Your task to perform on an android device: toggle show notifications on the lock screen Image 0: 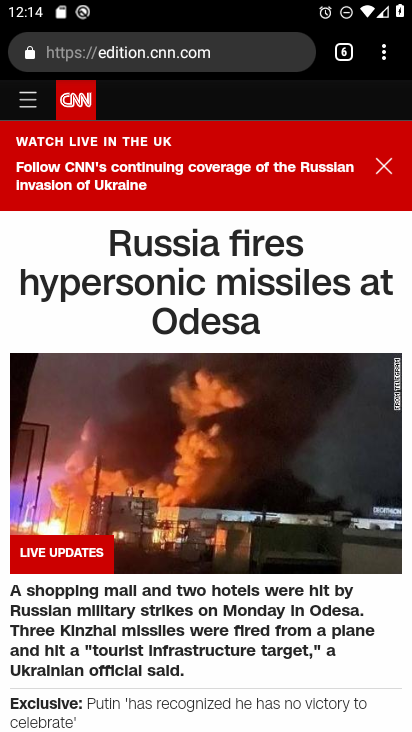
Step 0: press home button
Your task to perform on an android device: toggle show notifications on the lock screen Image 1: 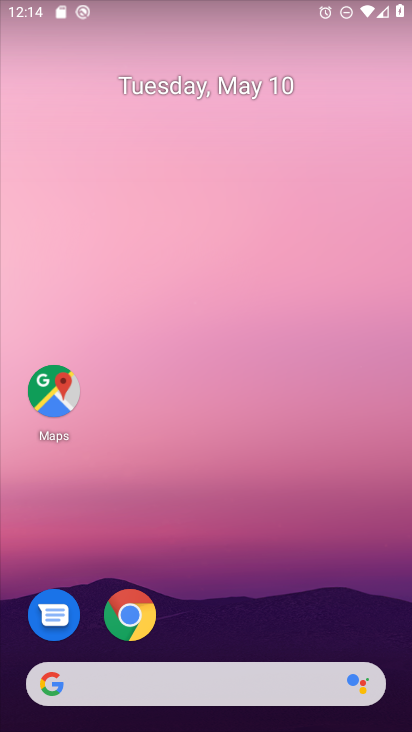
Step 1: drag from (236, 723) to (298, 355)
Your task to perform on an android device: toggle show notifications on the lock screen Image 2: 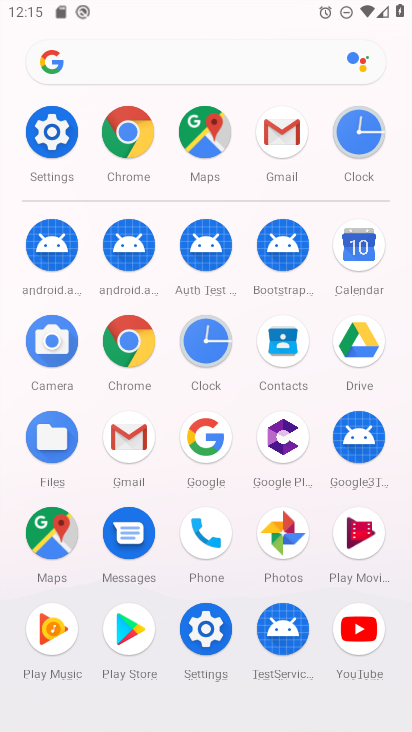
Step 2: click (66, 143)
Your task to perform on an android device: toggle show notifications on the lock screen Image 3: 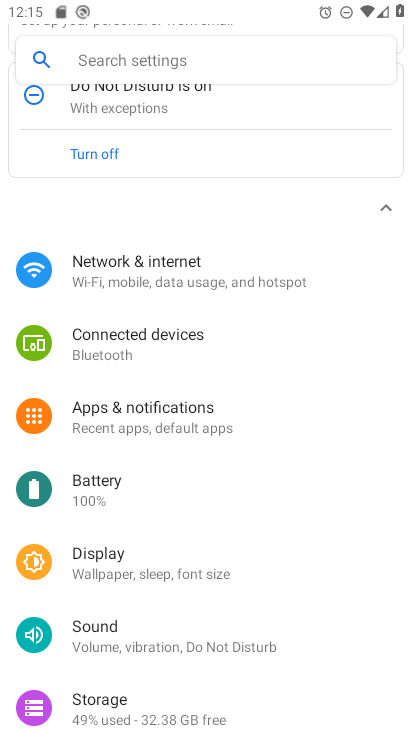
Step 3: click (146, 60)
Your task to perform on an android device: toggle show notifications on the lock screen Image 4: 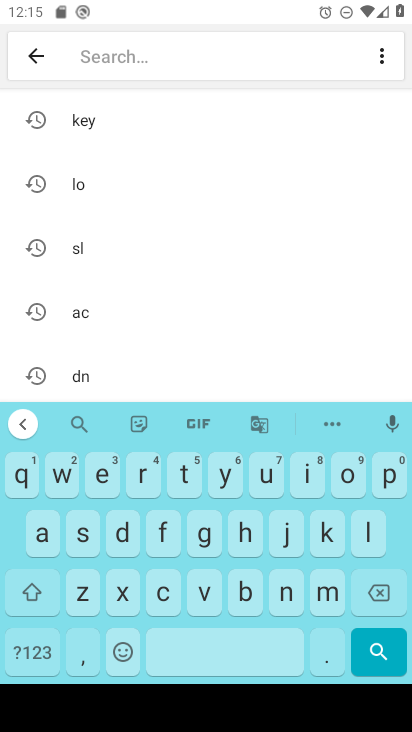
Step 4: click (289, 594)
Your task to perform on an android device: toggle show notifications on the lock screen Image 5: 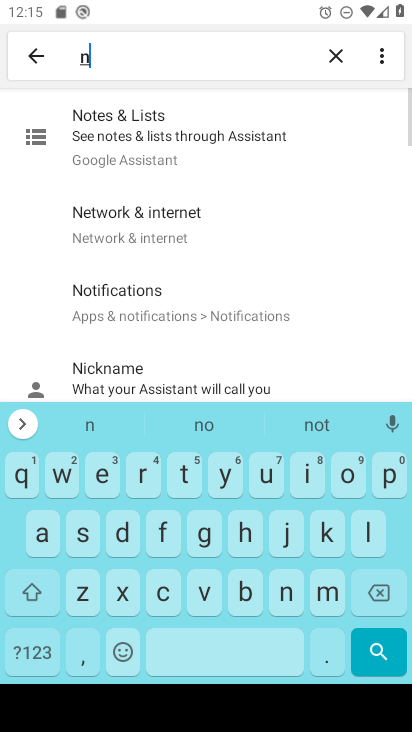
Step 5: click (344, 480)
Your task to perform on an android device: toggle show notifications on the lock screen Image 6: 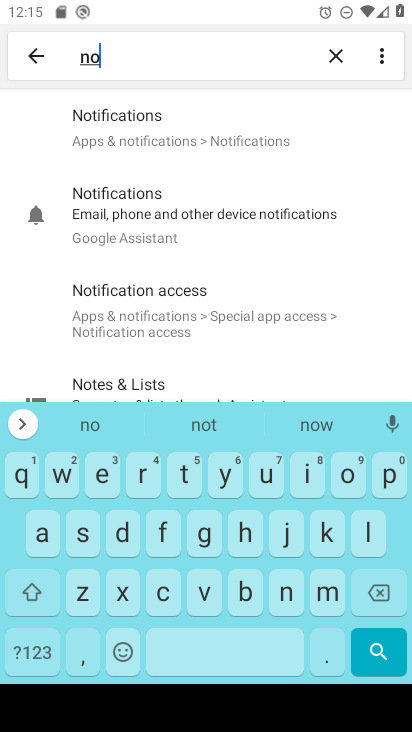
Step 6: click (133, 140)
Your task to perform on an android device: toggle show notifications on the lock screen Image 7: 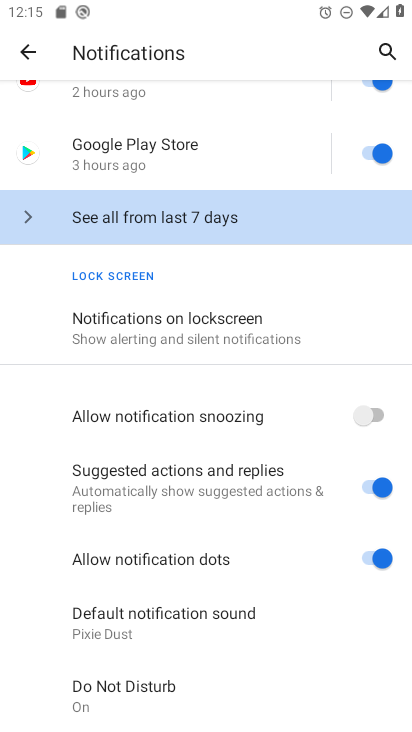
Step 7: click (143, 323)
Your task to perform on an android device: toggle show notifications on the lock screen Image 8: 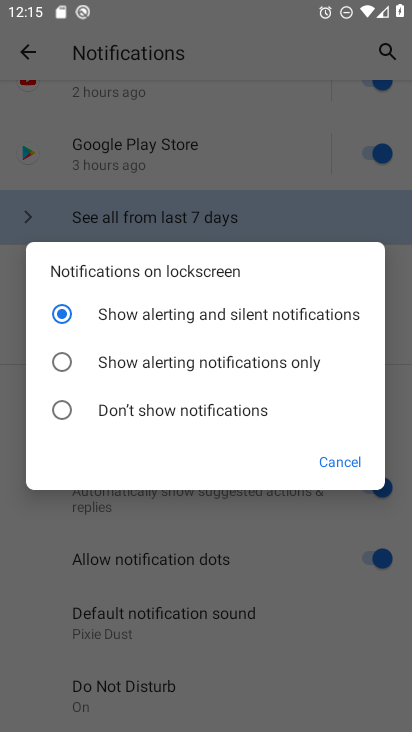
Step 8: task complete